Your task to perform on an android device: Go to ESPN.com Image 0: 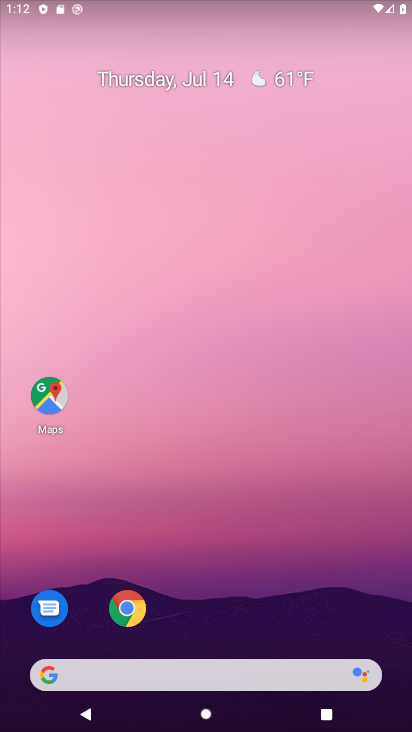
Step 0: click (128, 611)
Your task to perform on an android device: Go to ESPN.com Image 1: 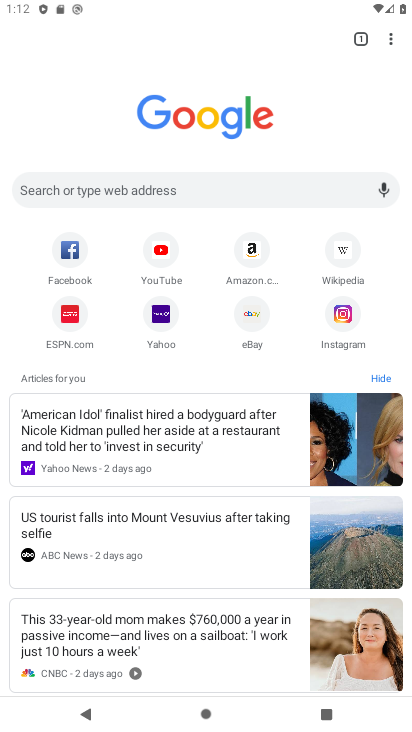
Step 1: click (59, 313)
Your task to perform on an android device: Go to ESPN.com Image 2: 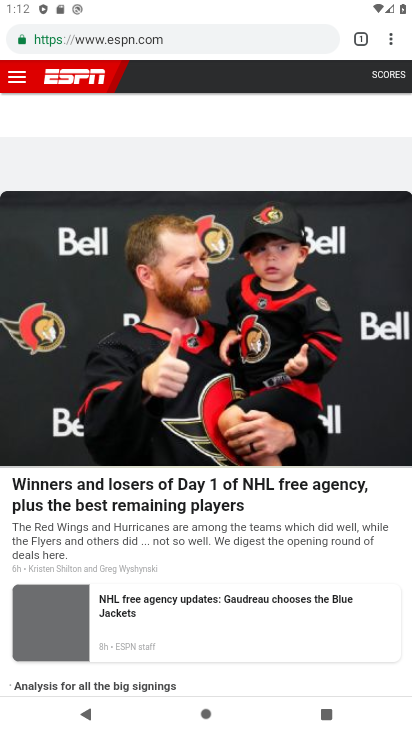
Step 2: task complete